Your task to perform on an android device: open app "Facebook Messenger" Image 0: 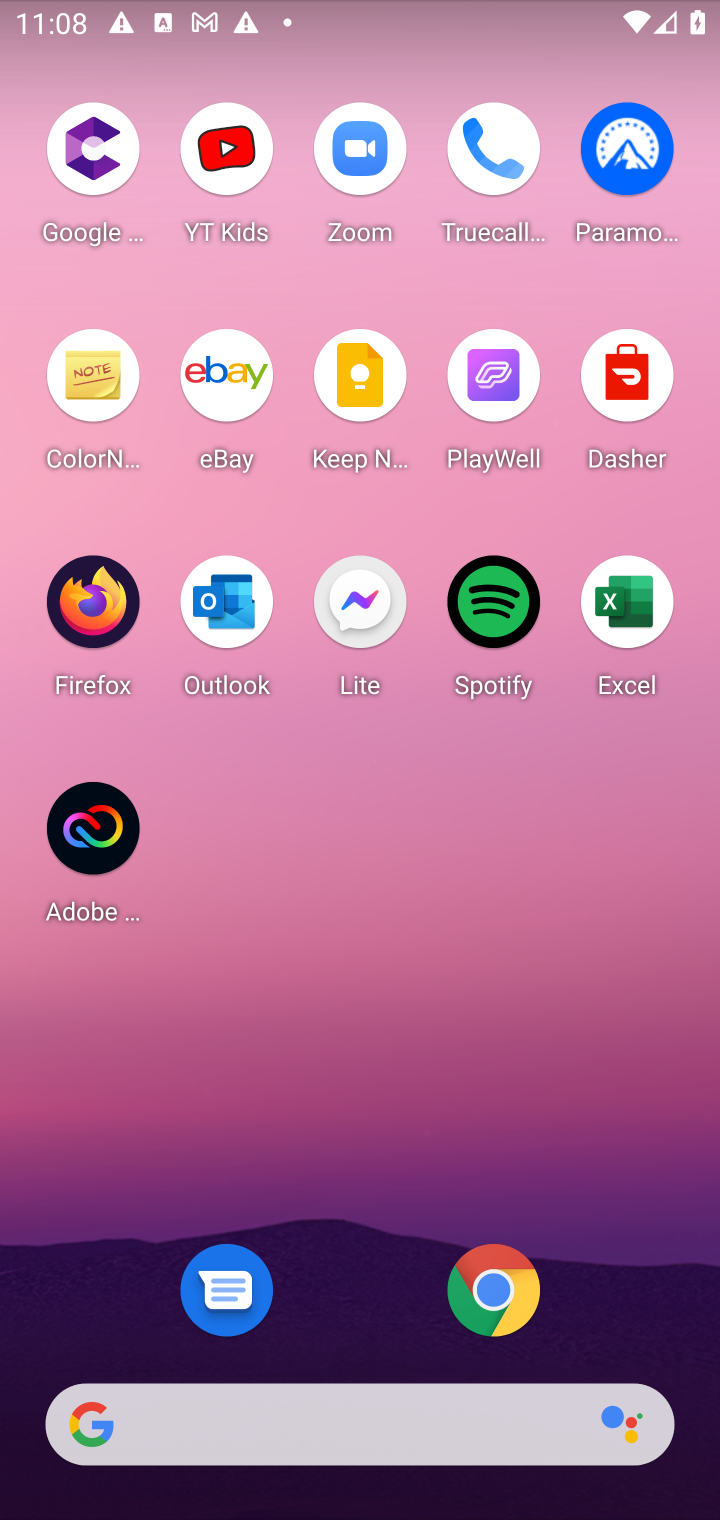
Step 0: press home button
Your task to perform on an android device: open app "Facebook Messenger" Image 1: 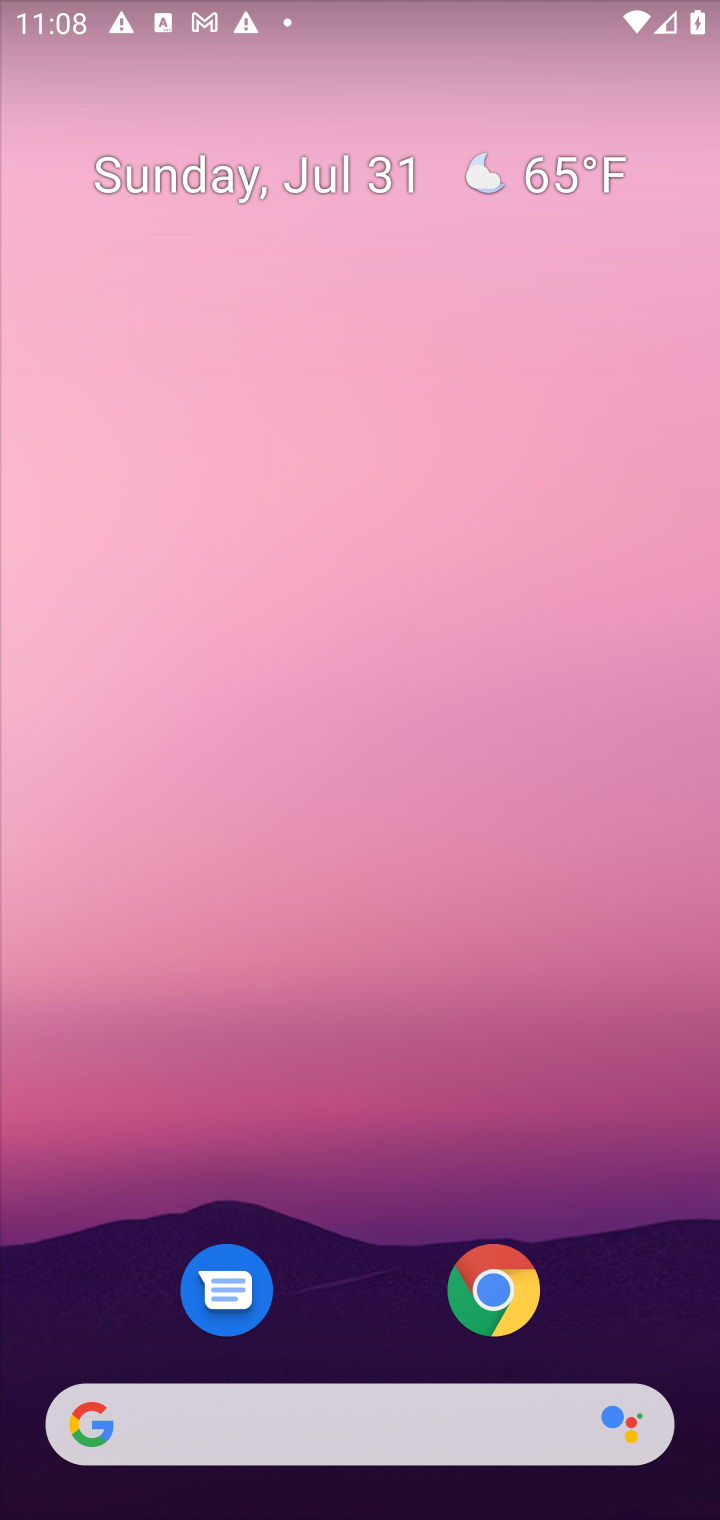
Step 1: drag from (610, 1107) to (631, 214)
Your task to perform on an android device: open app "Facebook Messenger" Image 2: 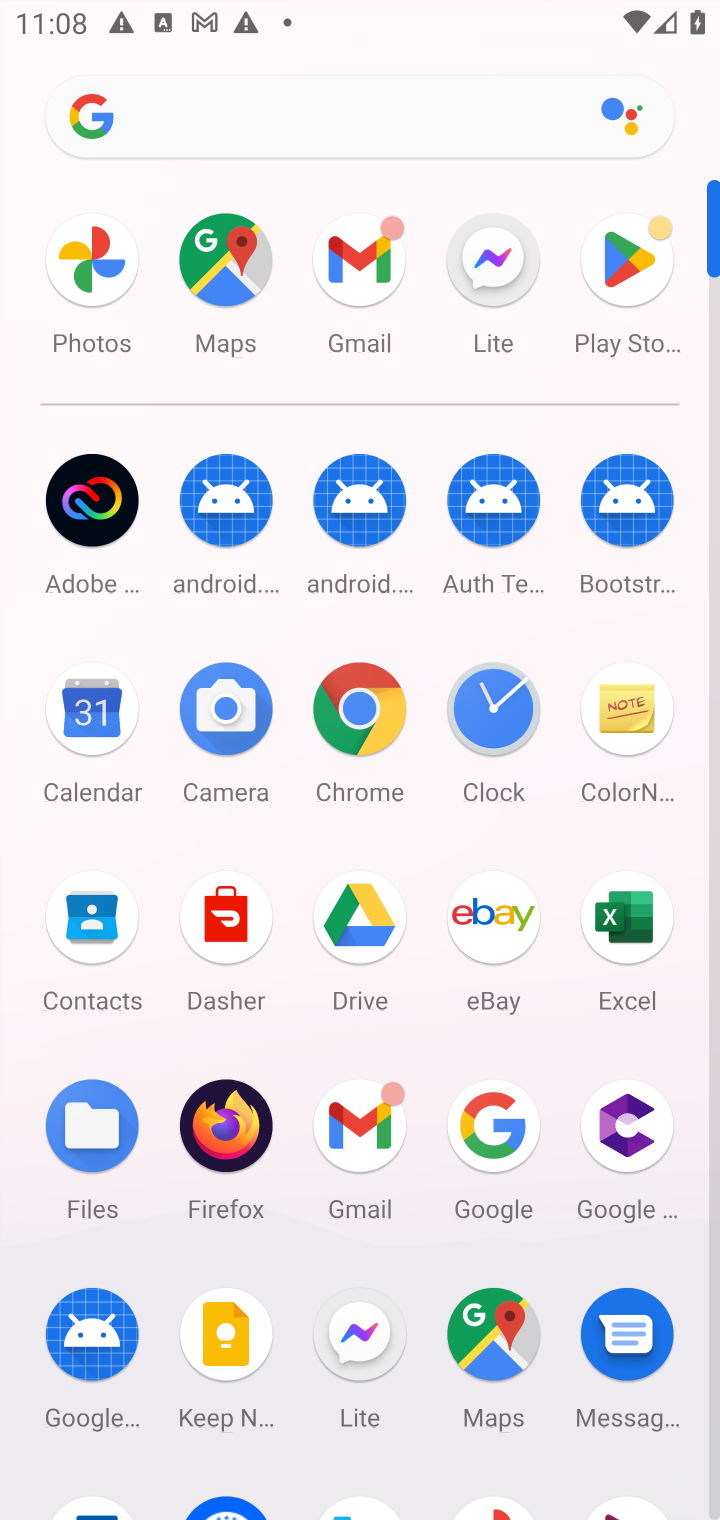
Step 2: click (633, 271)
Your task to perform on an android device: open app "Facebook Messenger" Image 3: 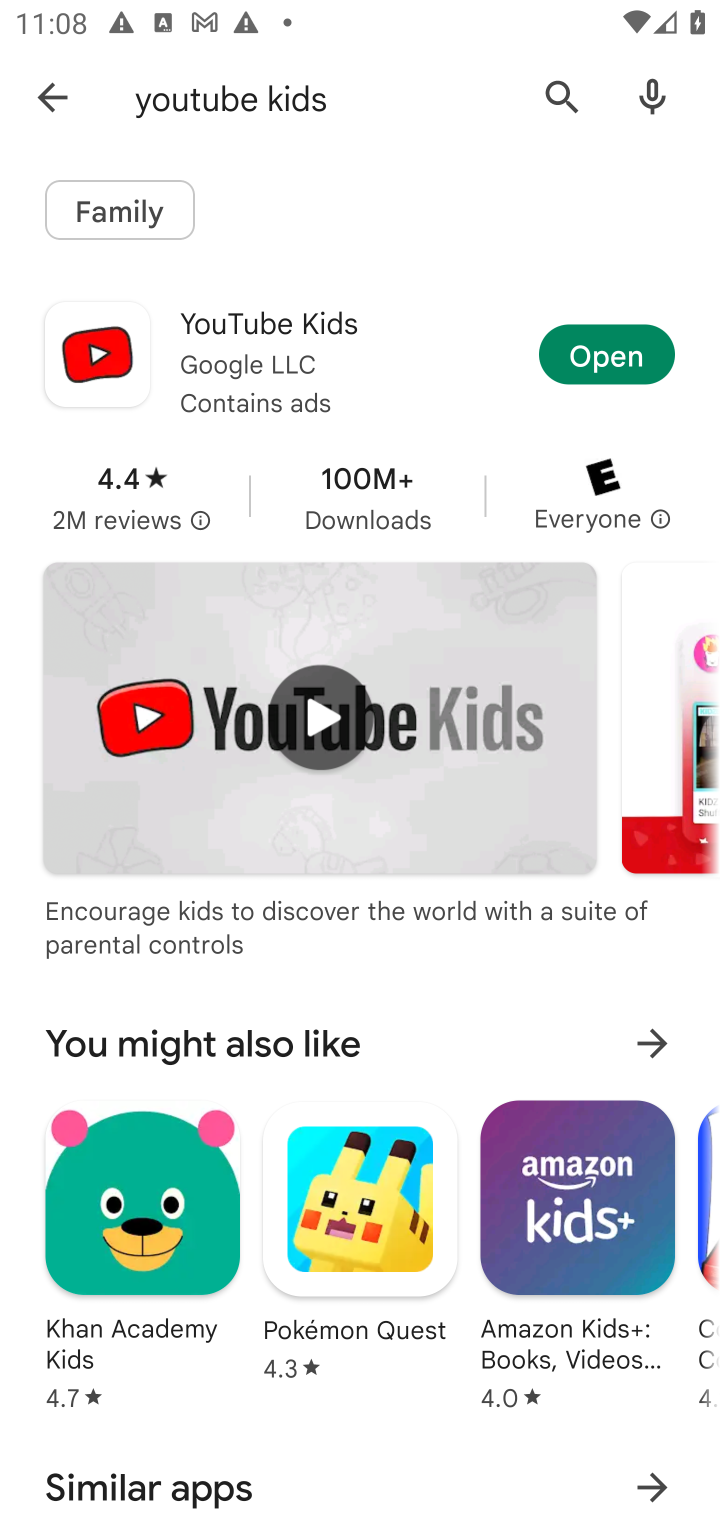
Step 3: click (558, 91)
Your task to perform on an android device: open app "Facebook Messenger" Image 4: 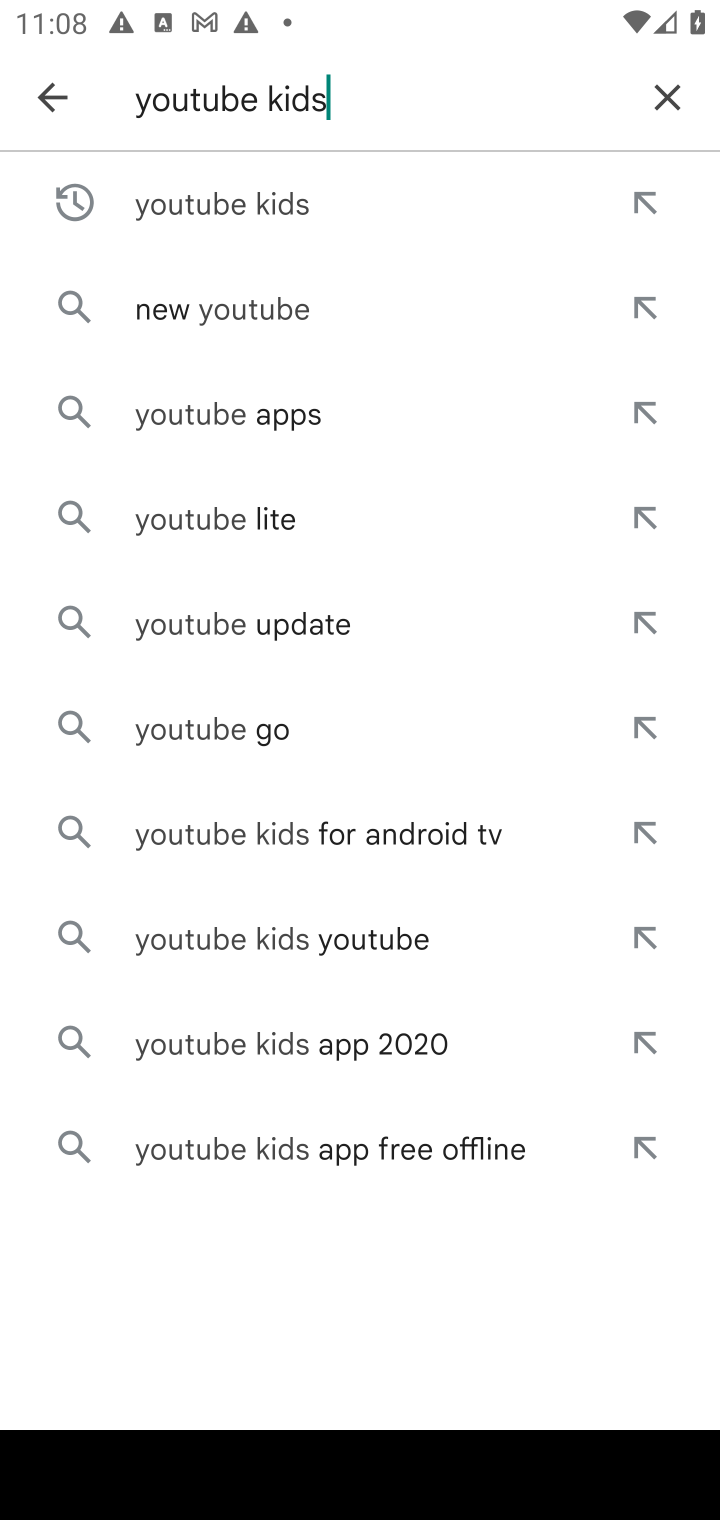
Step 4: click (663, 107)
Your task to perform on an android device: open app "Facebook Messenger" Image 5: 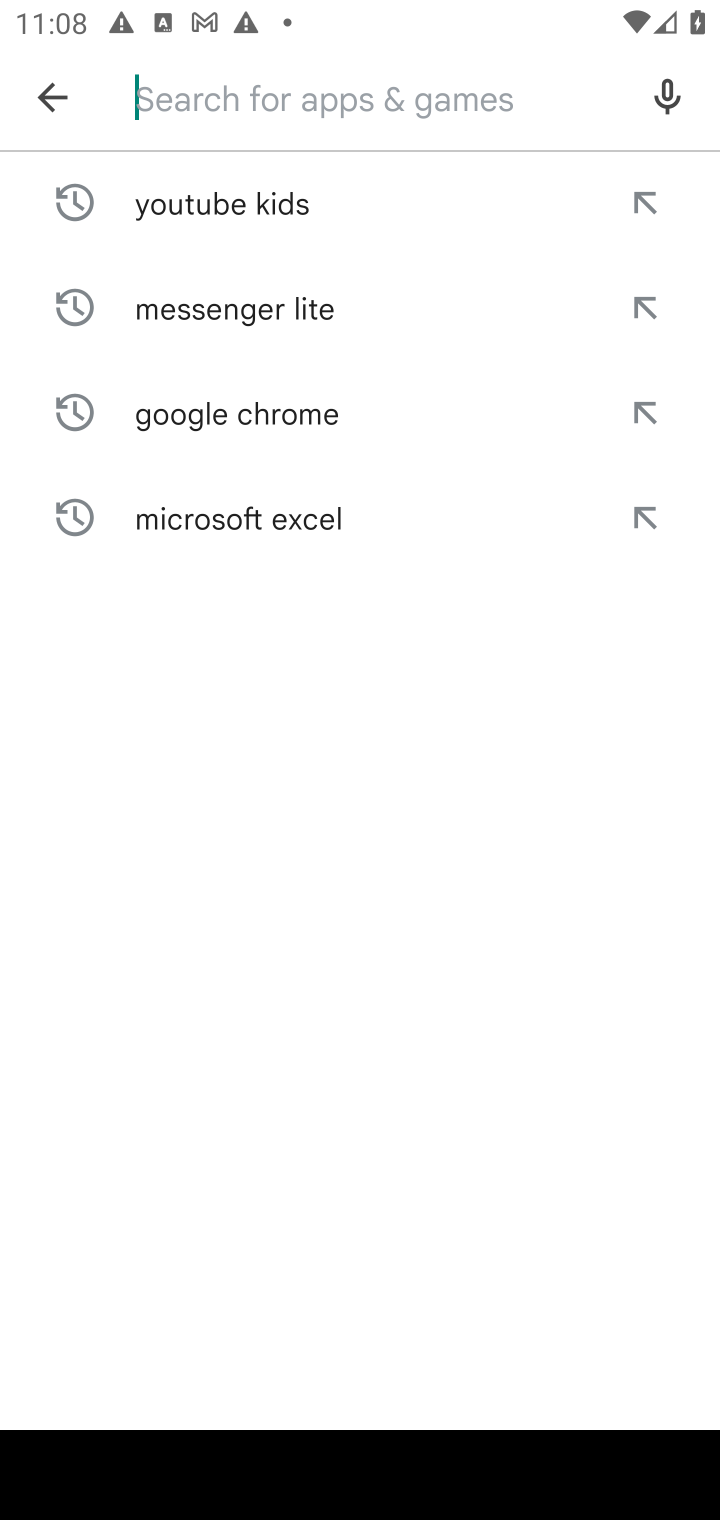
Step 5: click (497, 115)
Your task to perform on an android device: open app "Facebook Messenger" Image 6: 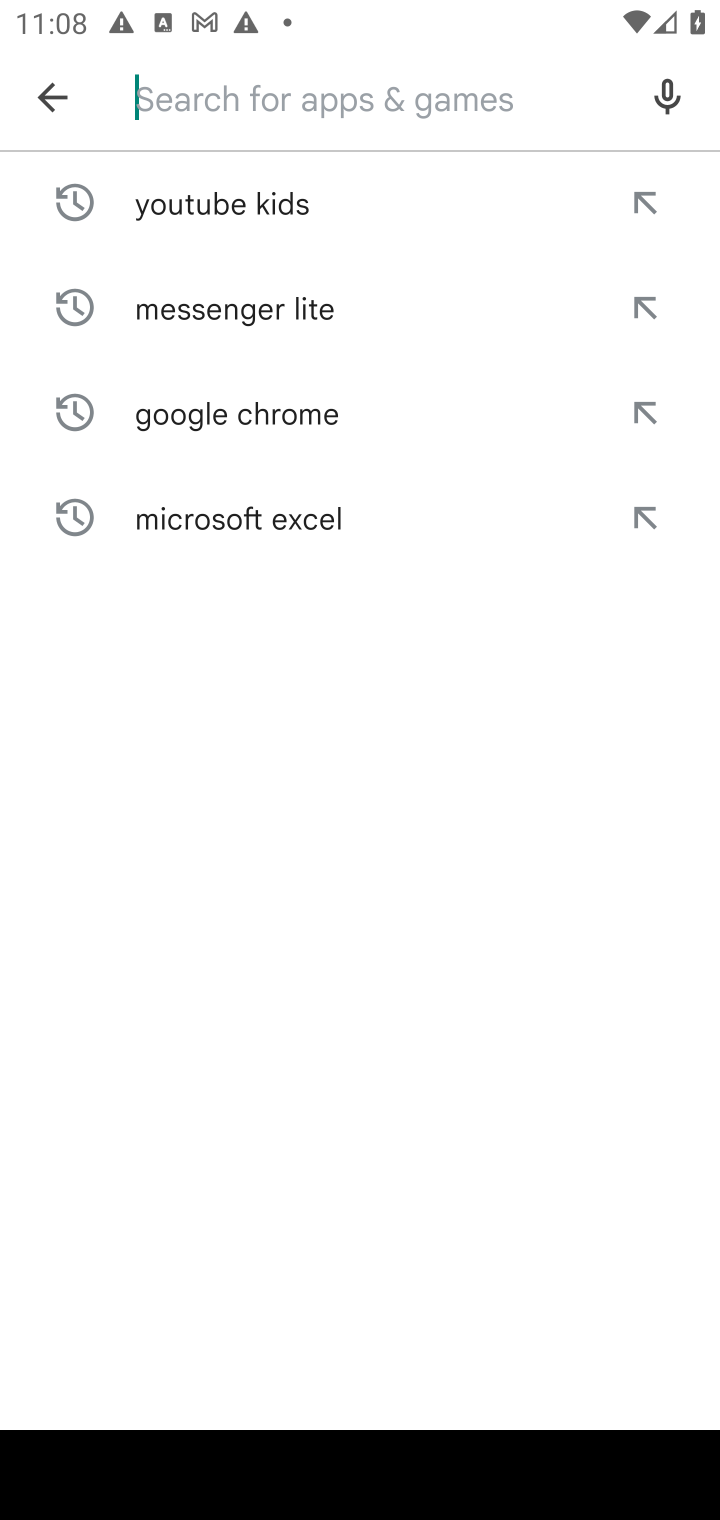
Step 6: type "facebook messenger"
Your task to perform on an android device: open app "Facebook Messenger" Image 7: 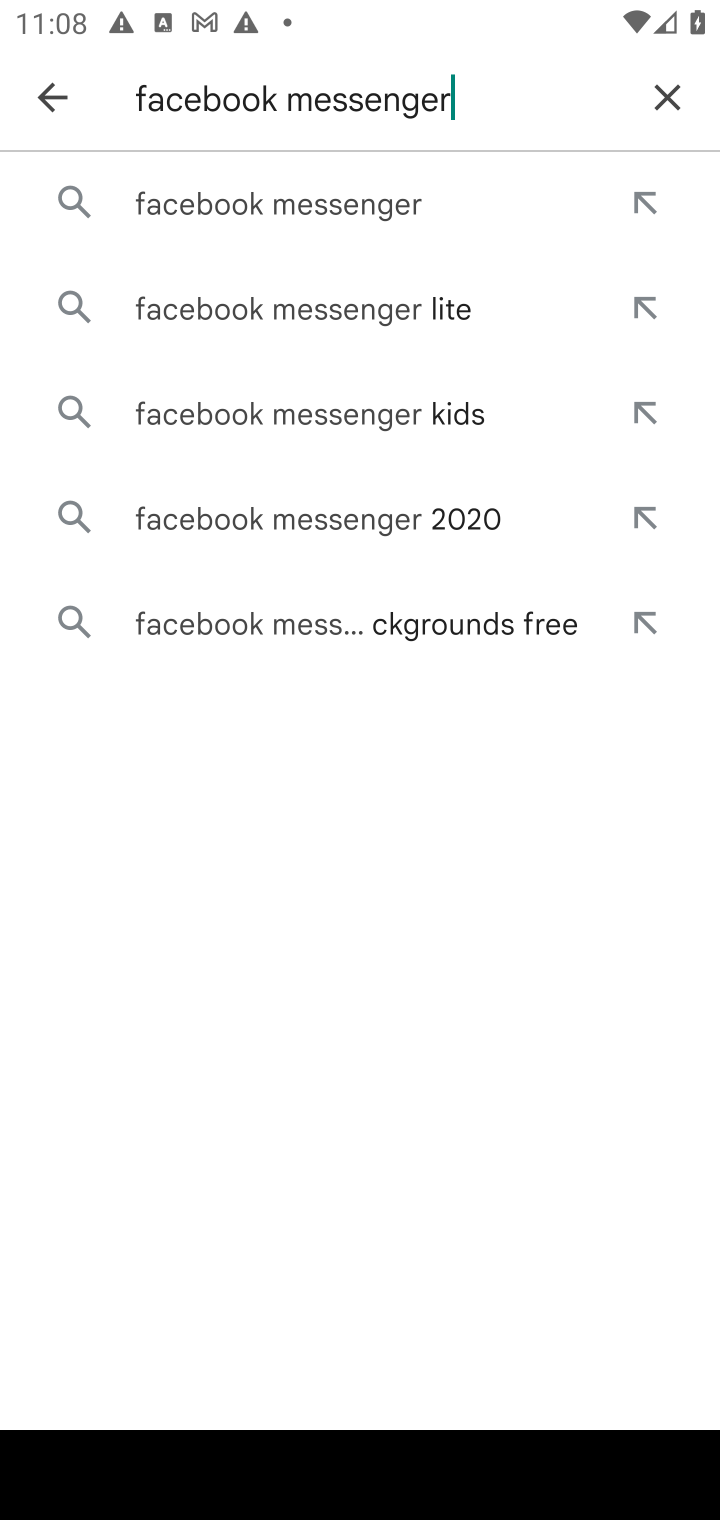
Step 7: click (411, 204)
Your task to perform on an android device: open app "Facebook Messenger" Image 8: 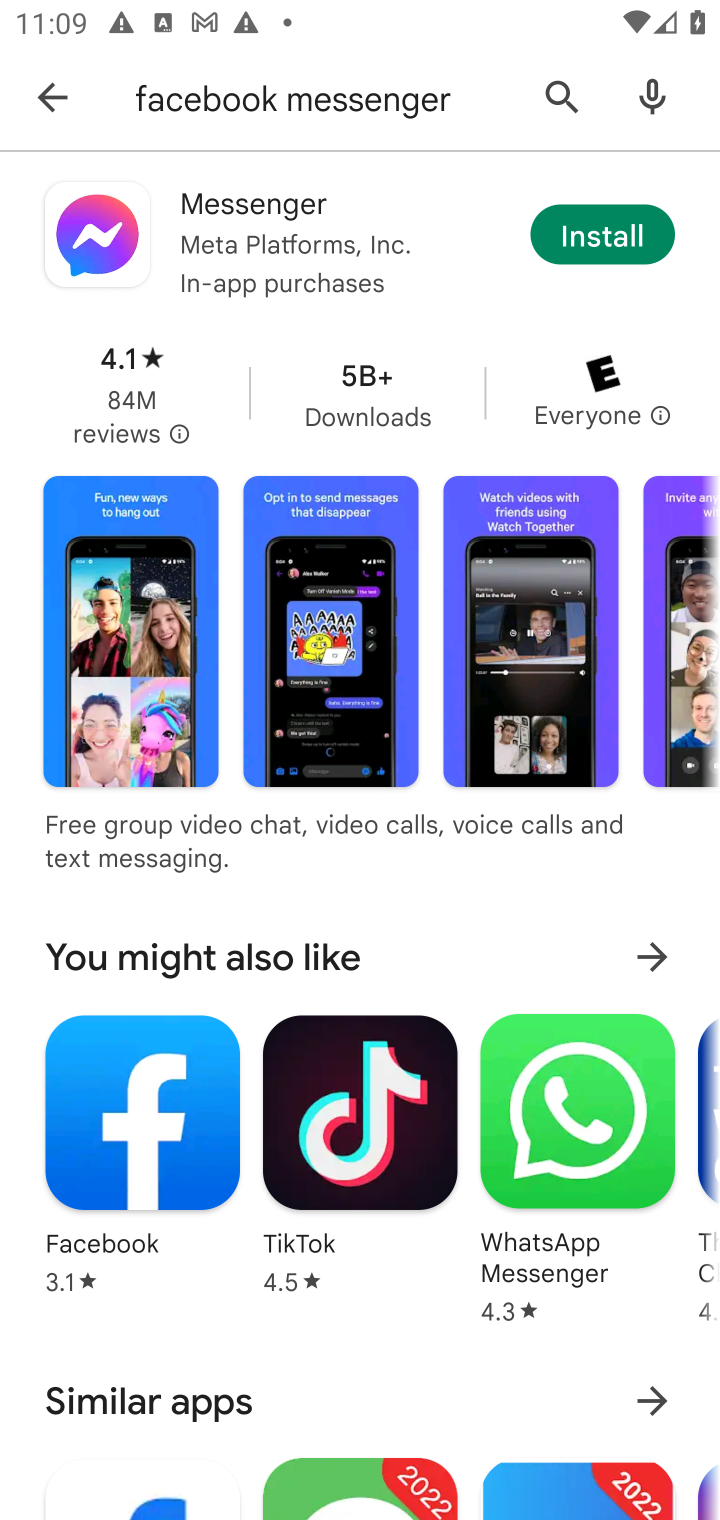
Step 8: task complete